Your task to perform on an android device: Open maps Image 0: 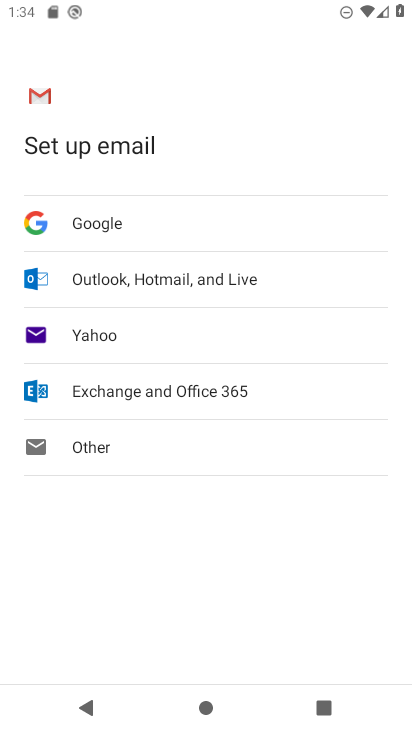
Step 0: drag from (197, 630) to (209, 242)
Your task to perform on an android device: Open maps Image 1: 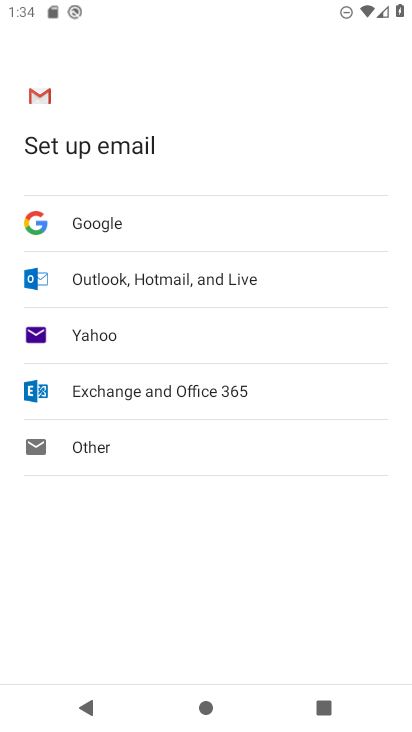
Step 1: press home button
Your task to perform on an android device: Open maps Image 2: 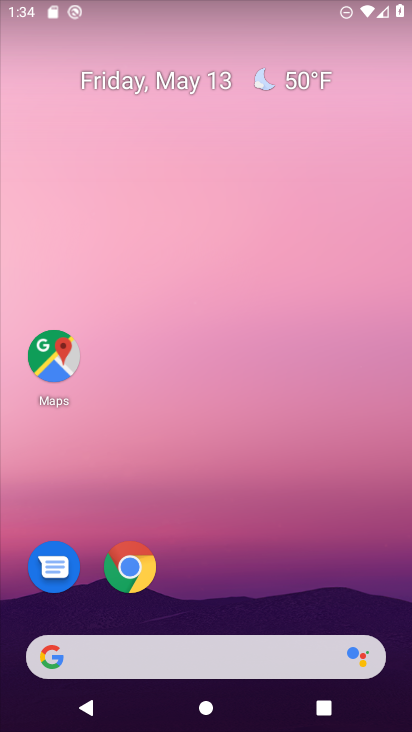
Step 2: click (61, 364)
Your task to perform on an android device: Open maps Image 3: 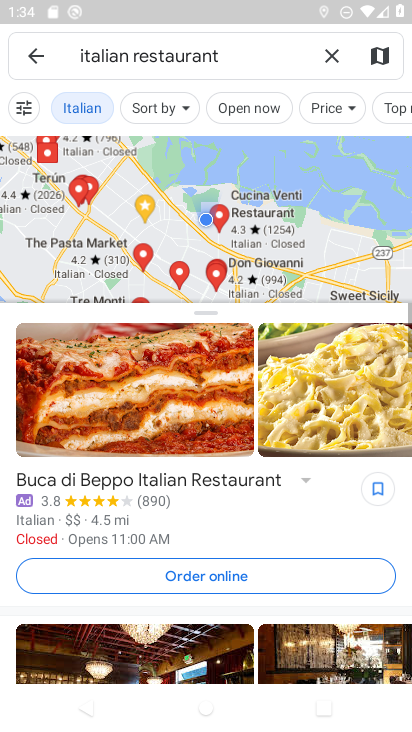
Step 3: click (324, 57)
Your task to perform on an android device: Open maps Image 4: 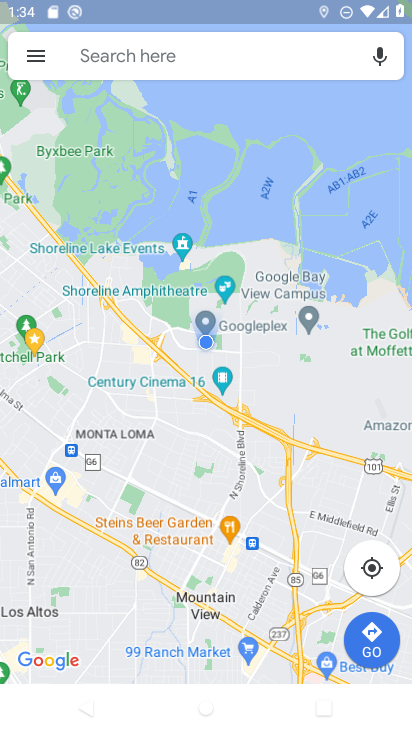
Step 4: task complete